Your task to perform on an android device: turn on location history Image 0: 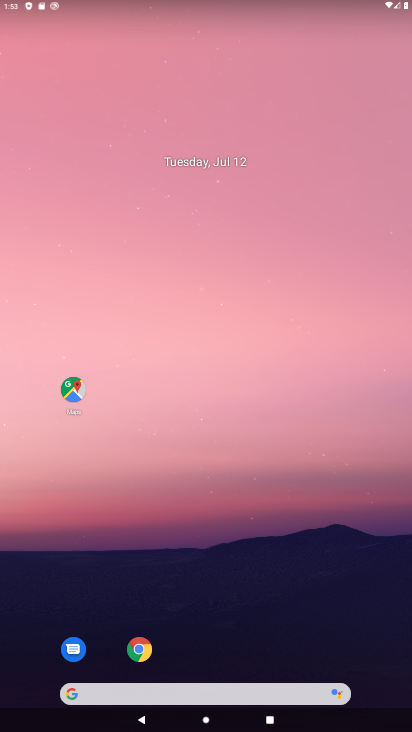
Step 0: drag from (237, 639) to (172, 102)
Your task to perform on an android device: turn on location history Image 1: 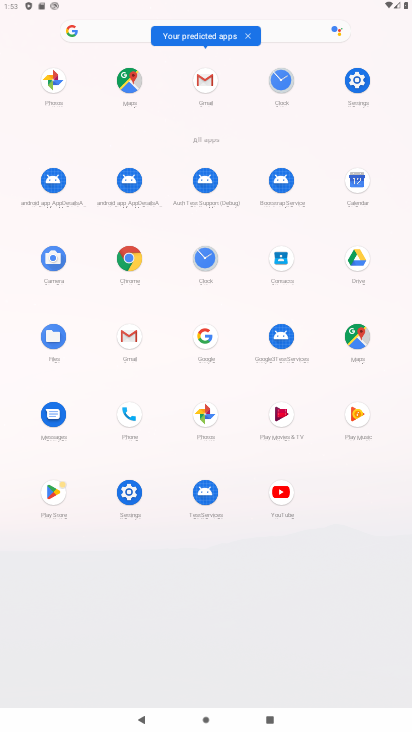
Step 1: click (131, 495)
Your task to perform on an android device: turn on location history Image 2: 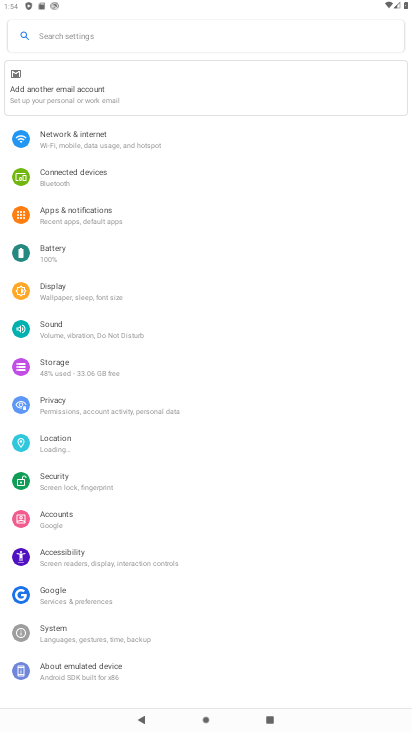
Step 2: click (89, 440)
Your task to perform on an android device: turn on location history Image 3: 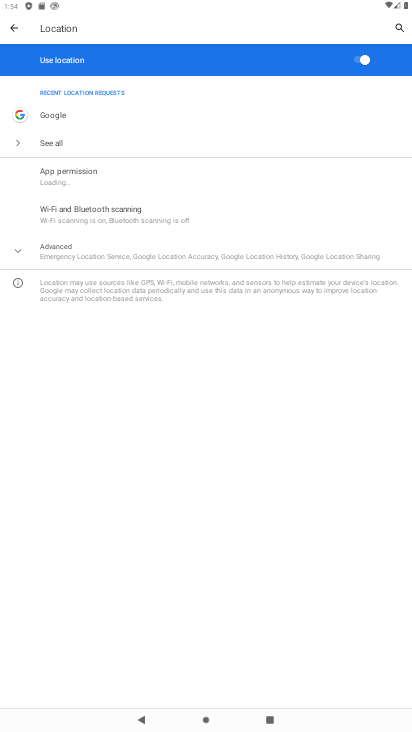
Step 3: click (71, 248)
Your task to perform on an android device: turn on location history Image 4: 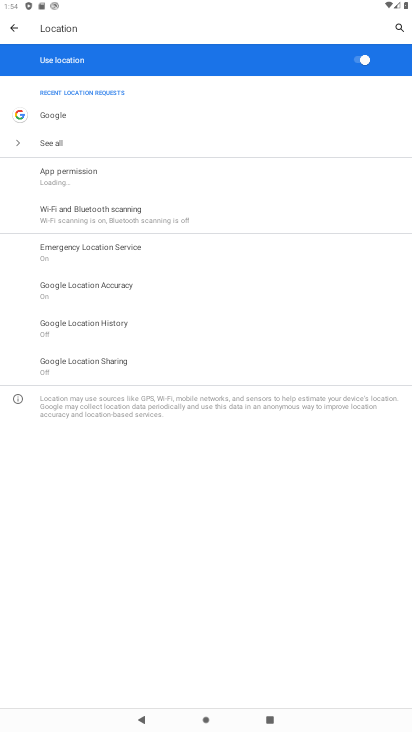
Step 4: click (102, 322)
Your task to perform on an android device: turn on location history Image 5: 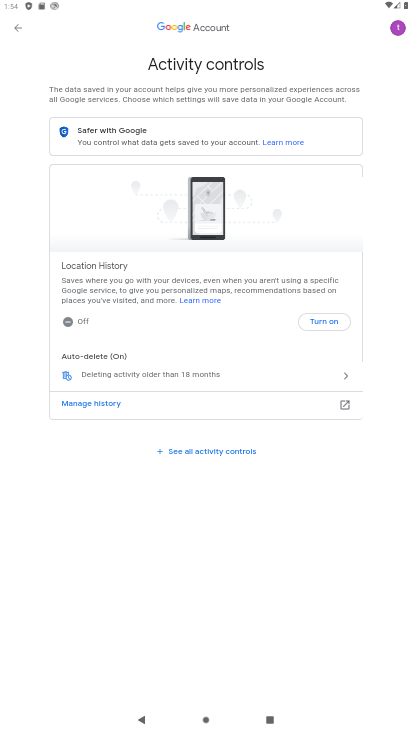
Step 5: click (331, 322)
Your task to perform on an android device: turn on location history Image 6: 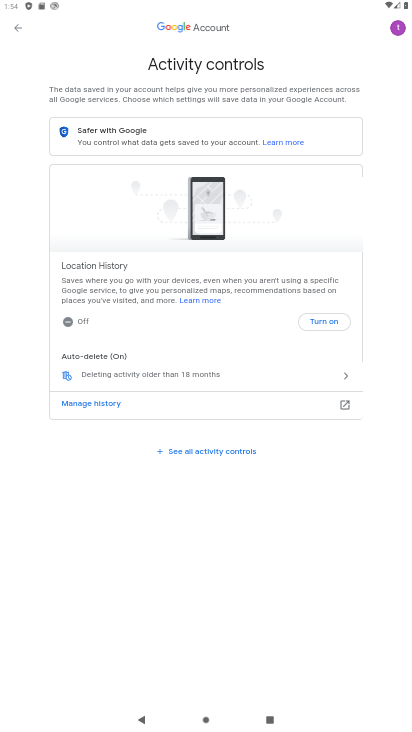
Step 6: click (322, 319)
Your task to perform on an android device: turn on location history Image 7: 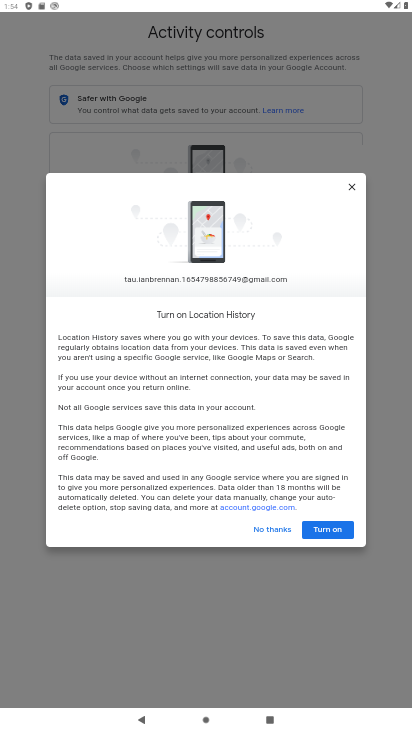
Step 7: click (330, 528)
Your task to perform on an android device: turn on location history Image 8: 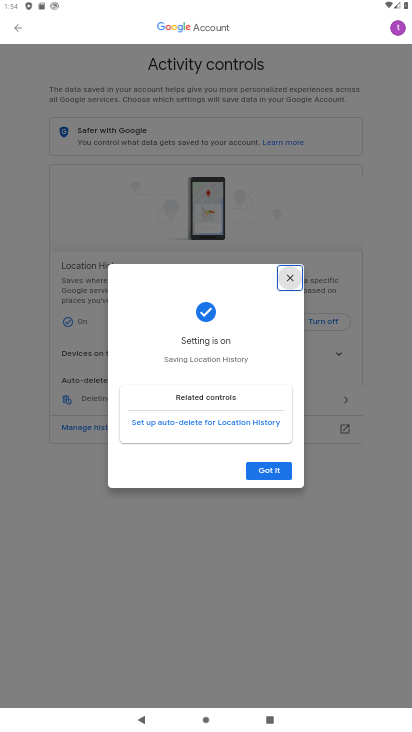
Step 8: task complete